Your task to perform on an android device: Go to sound settings Image 0: 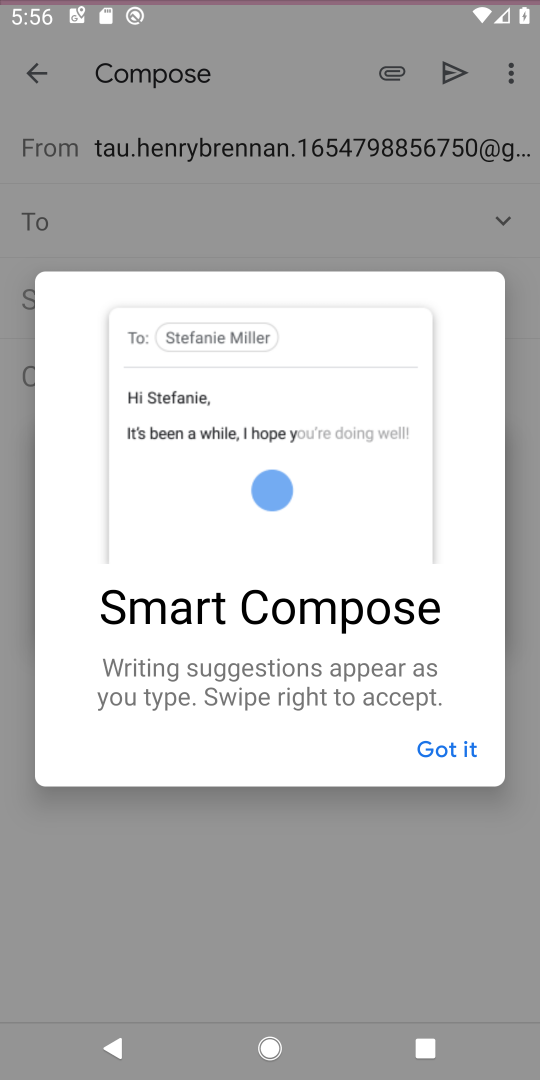
Step 0: drag from (288, 585) to (283, 102)
Your task to perform on an android device: Go to sound settings Image 1: 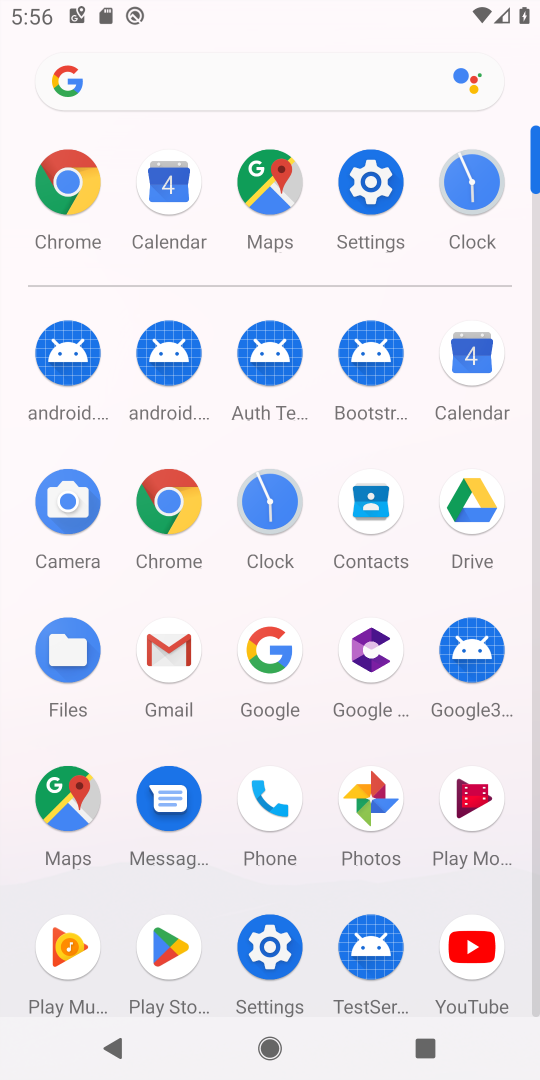
Step 1: click (371, 179)
Your task to perform on an android device: Go to sound settings Image 2: 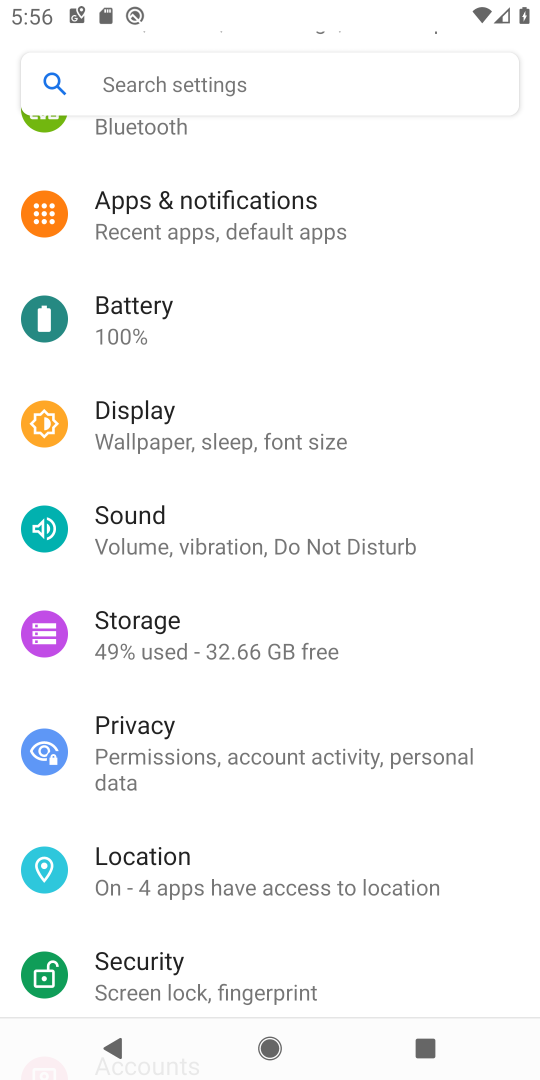
Step 2: click (121, 528)
Your task to perform on an android device: Go to sound settings Image 3: 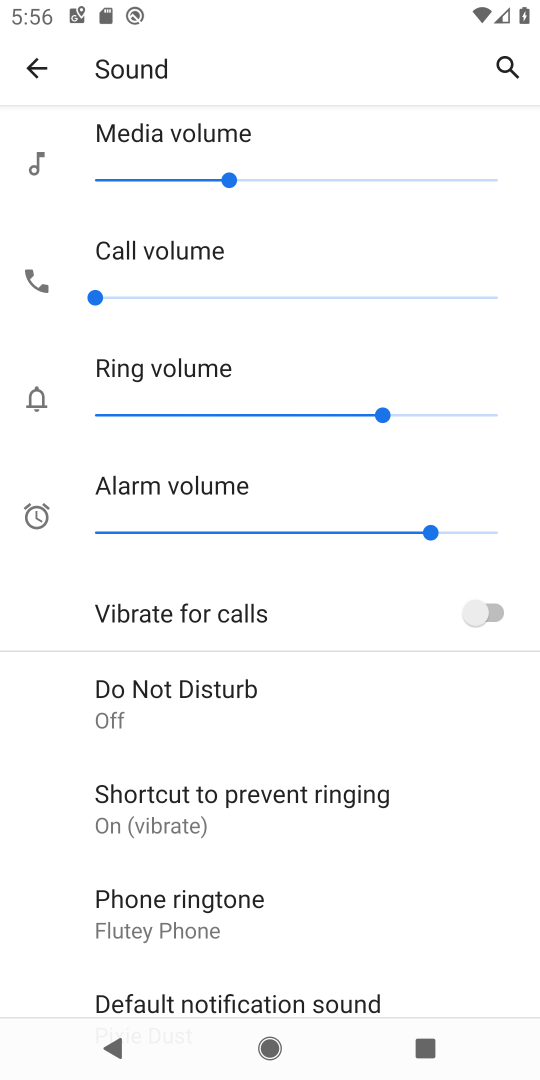
Step 3: task complete